Your task to perform on an android device: open app "ColorNote Notepad Notes" (install if not already installed) Image 0: 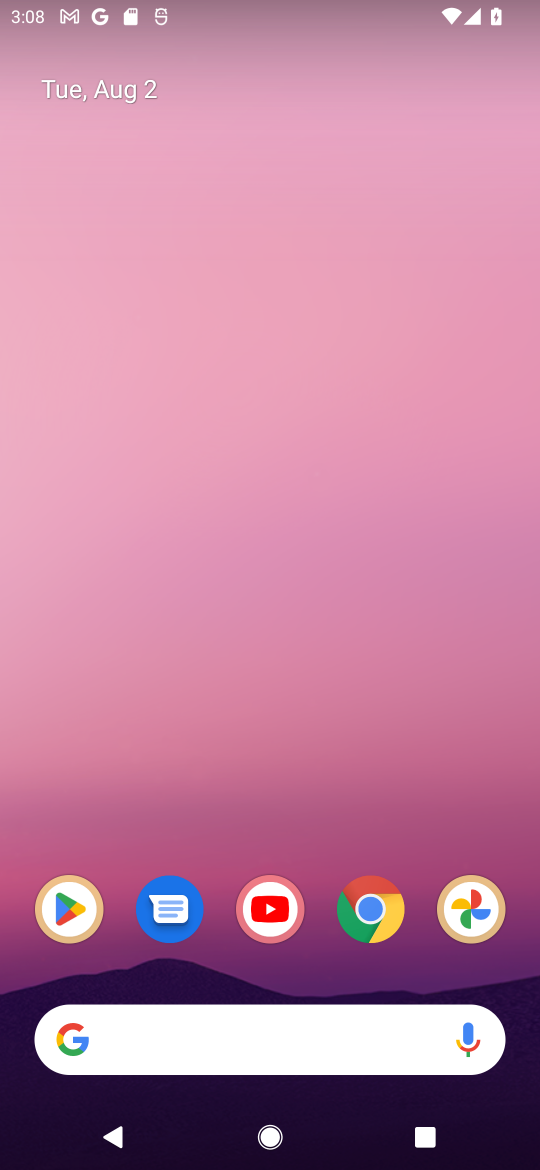
Step 0: drag from (215, 968) to (308, 284)
Your task to perform on an android device: open app "ColorNote Notepad Notes" (install if not already installed) Image 1: 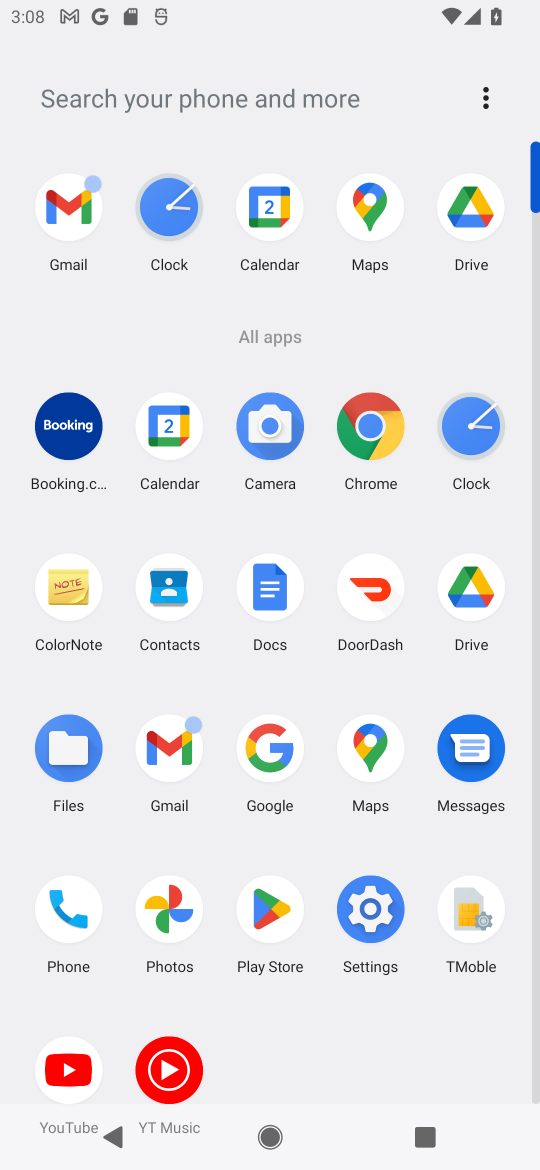
Step 1: click (278, 928)
Your task to perform on an android device: open app "ColorNote Notepad Notes" (install if not already installed) Image 2: 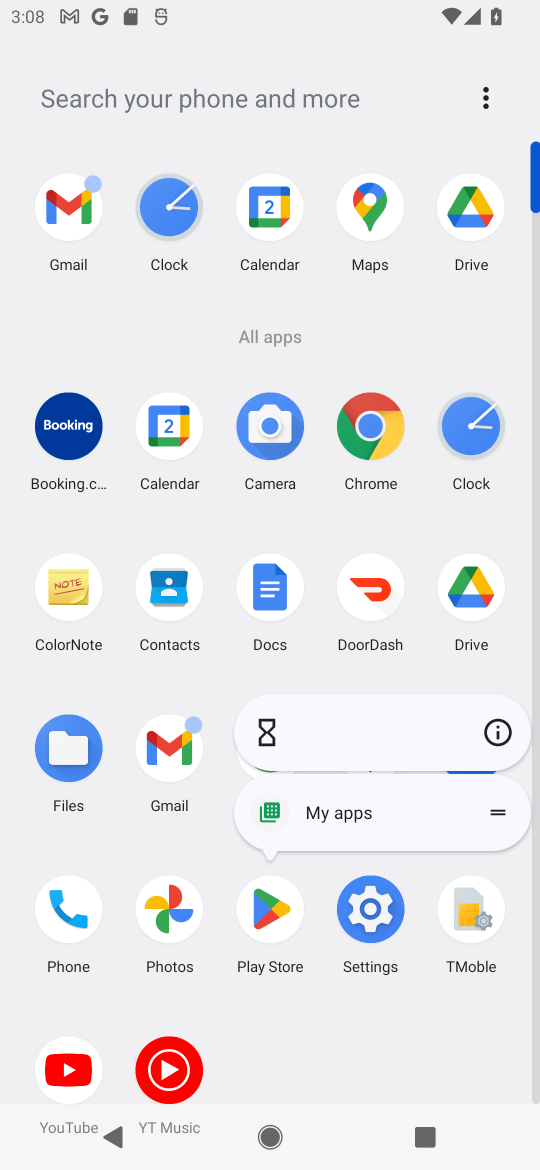
Step 2: click (512, 746)
Your task to perform on an android device: open app "ColorNote Notepad Notes" (install if not already installed) Image 3: 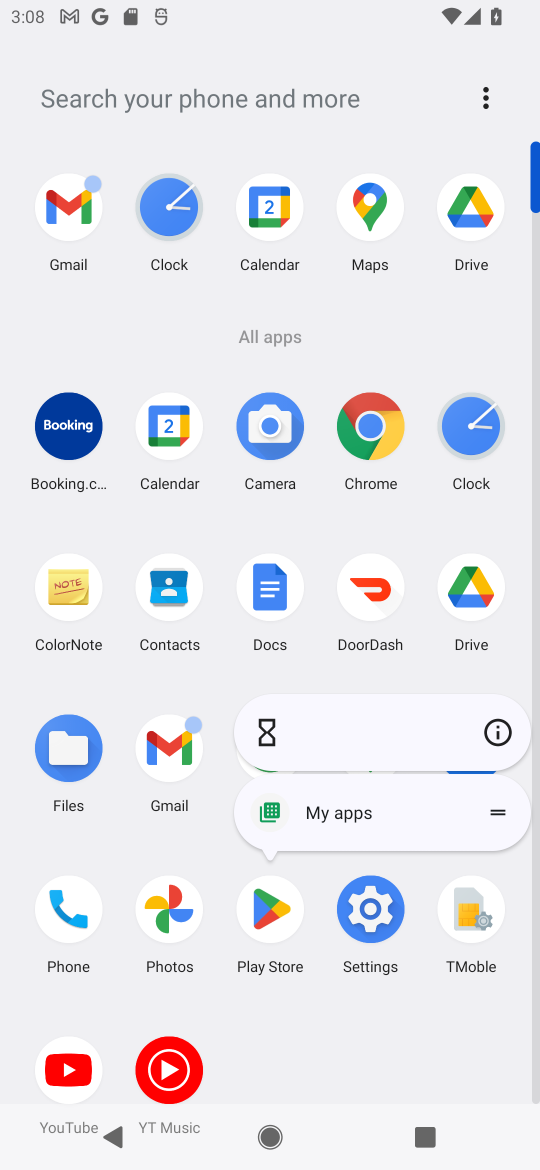
Step 3: click (498, 732)
Your task to perform on an android device: open app "ColorNote Notepad Notes" (install if not already installed) Image 4: 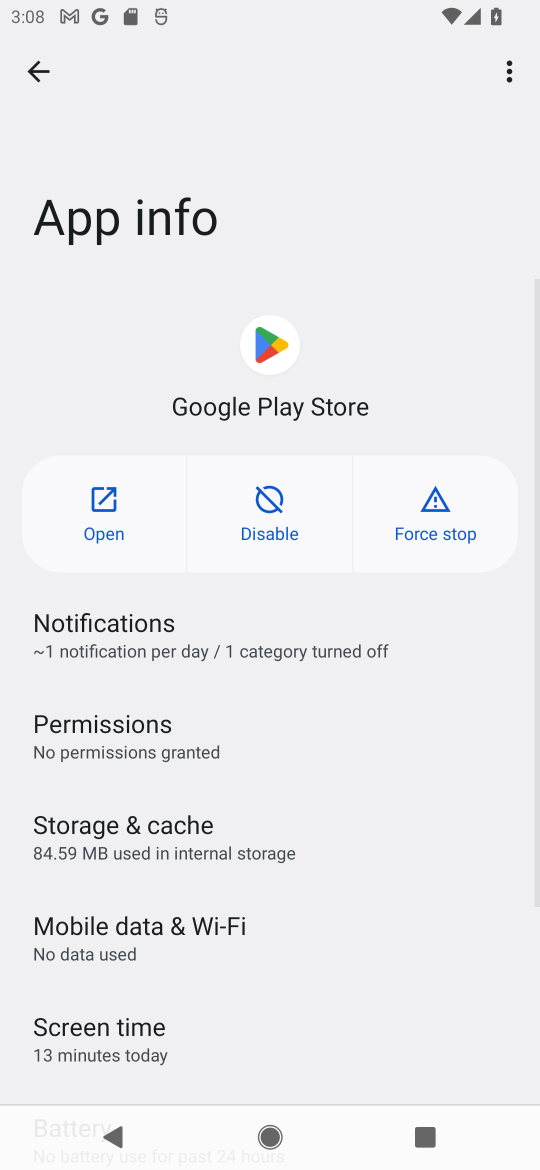
Step 4: click (102, 498)
Your task to perform on an android device: open app "ColorNote Notepad Notes" (install if not already installed) Image 5: 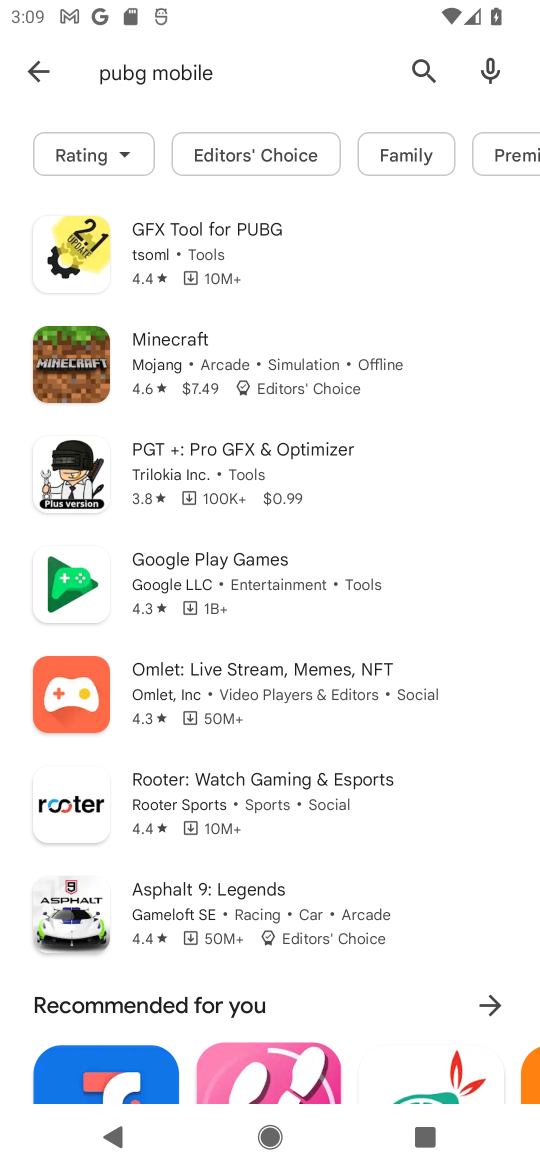
Step 5: click (421, 71)
Your task to perform on an android device: open app "ColorNote Notepad Notes" (install if not already installed) Image 6: 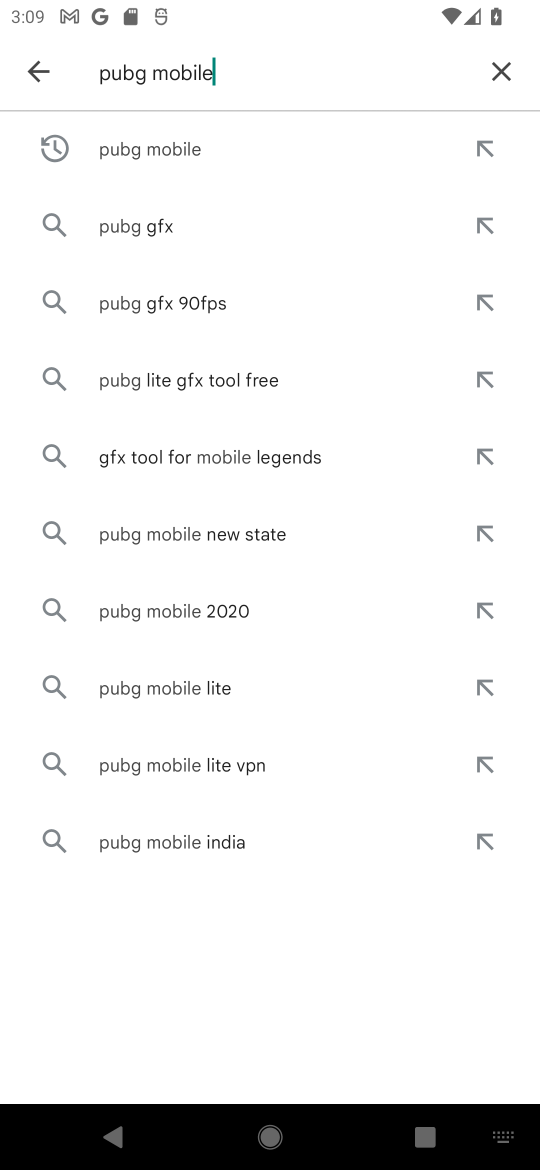
Step 6: click (513, 75)
Your task to perform on an android device: open app "ColorNote Notepad Notes" (install if not already installed) Image 7: 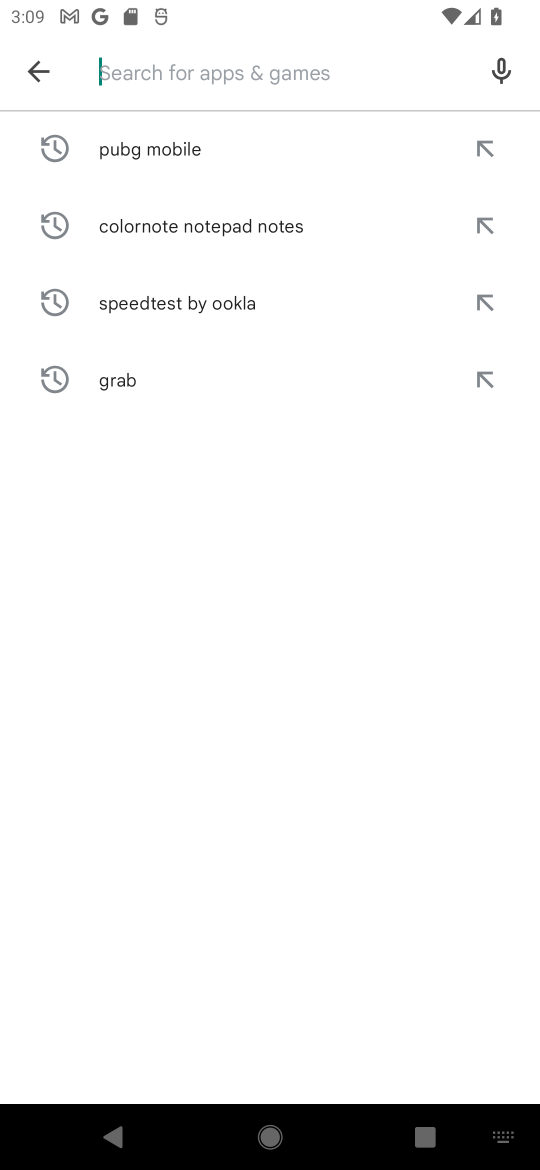
Step 7: type "ColorNote Notepad Notes"
Your task to perform on an android device: open app "ColorNote Notepad Notes" (install if not already installed) Image 8: 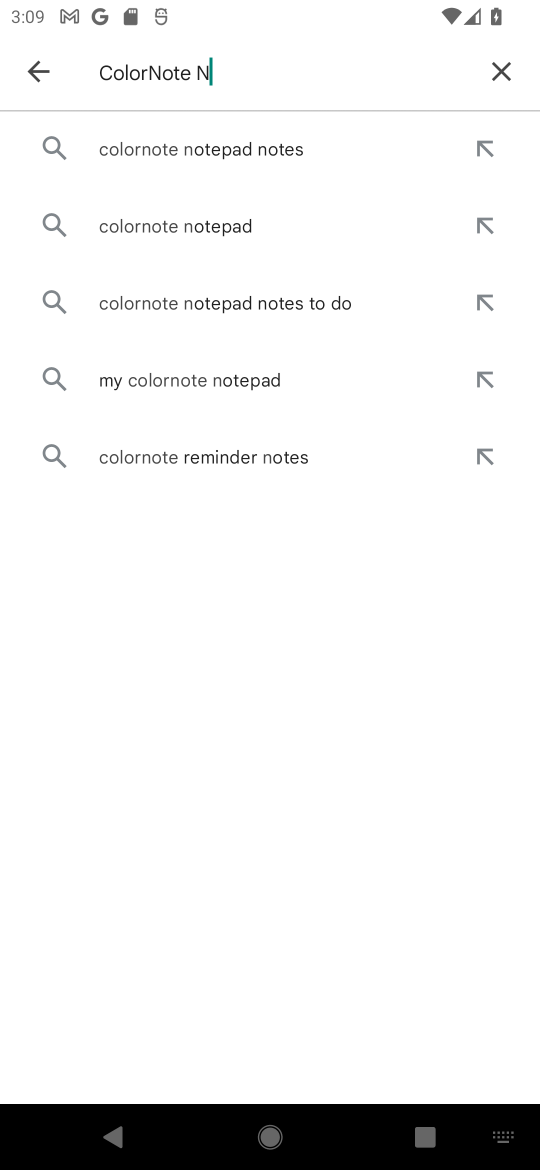
Step 8: type ""
Your task to perform on an android device: open app "ColorNote Notepad Notes" (install if not already installed) Image 9: 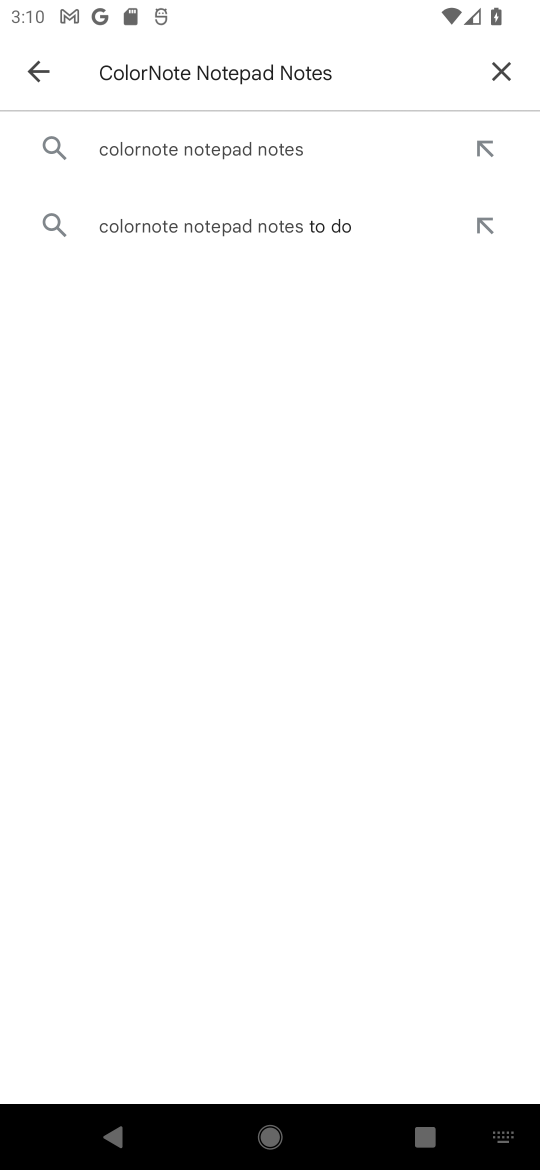
Step 9: click (192, 162)
Your task to perform on an android device: open app "ColorNote Notepad Notes" (install if not already installed) Image 10: 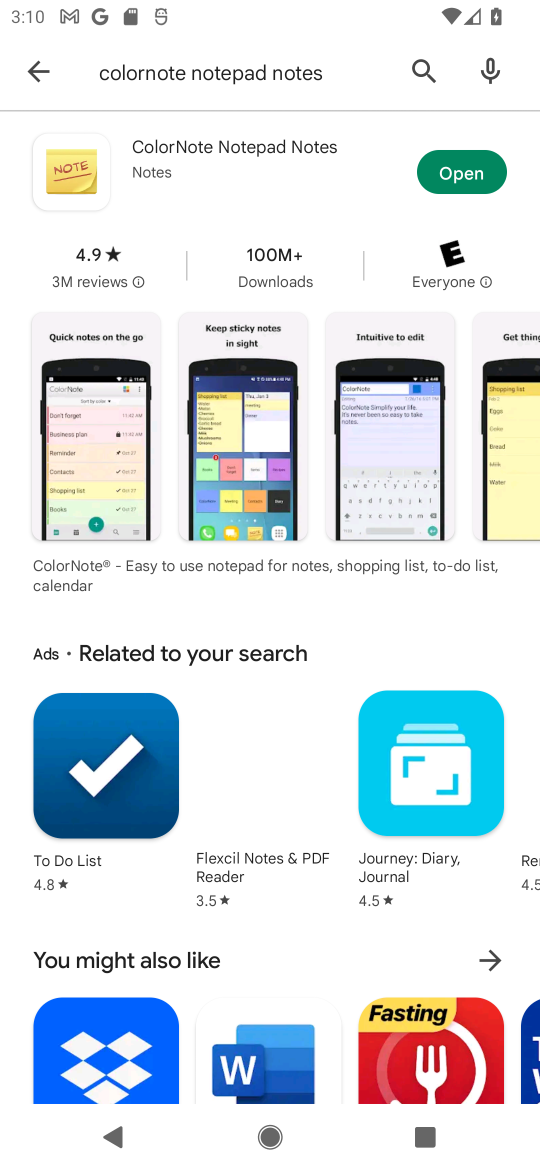
Step 10: click (439, 165)
Your task to perform on an android device: open app "ColorNote Notepad Notes" (install if not already installed) Image 11: 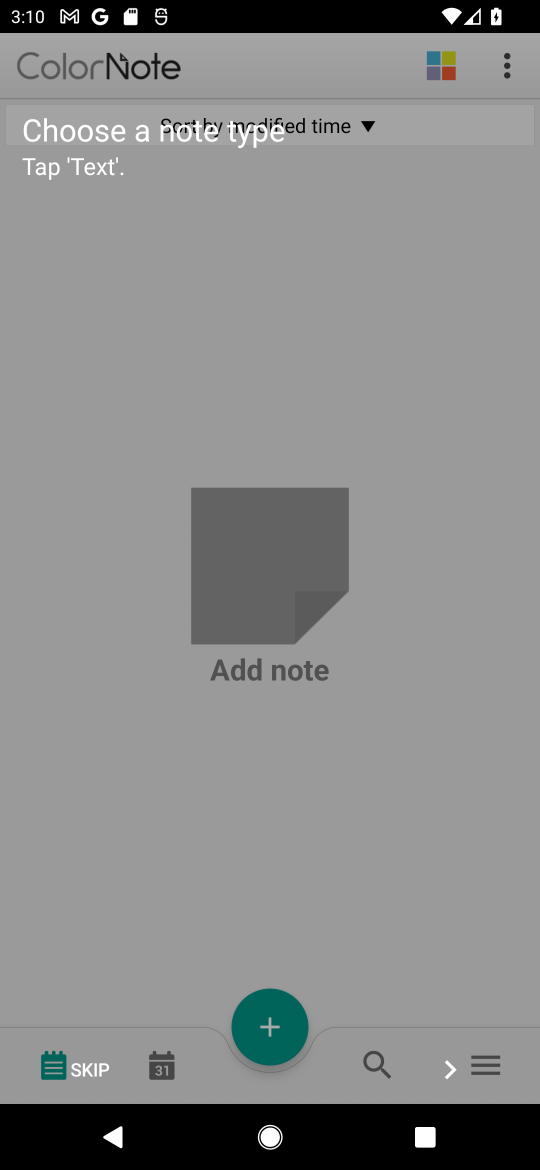
Step 11: task complete